Your task to perform on an android device: toggle location history Image 0: 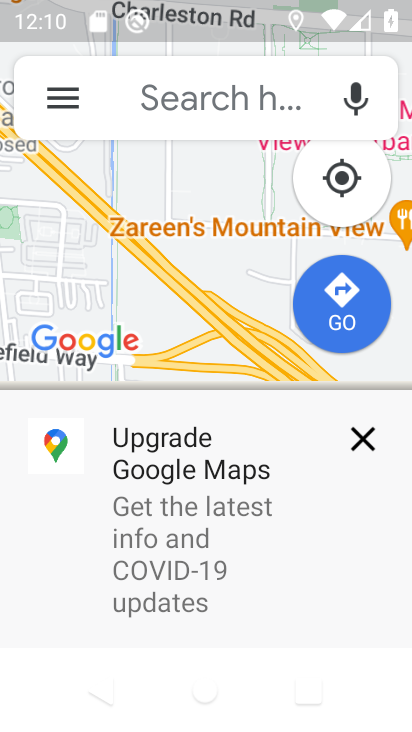
Step 0: click (378, 435)
Your task to perform on an android device: toggle location history Image 1: 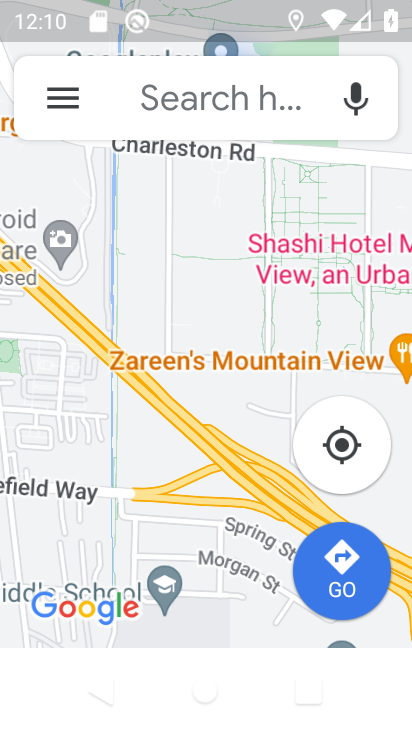
Step 1: press home button
Your task to perform on an android device: toggle location history Image 2: 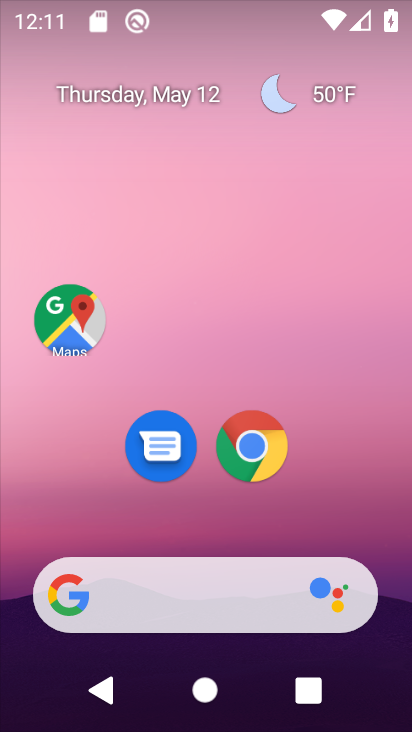
Step 2: drag from (314, 507) to (312, 9)
Your task to perform on an android device: toggle location history Image 3: 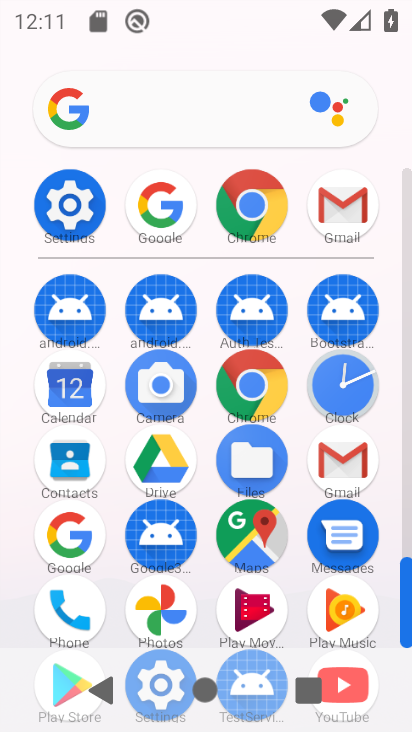
Step 3: click (56, 213)
Your task to perform on an android device: toggle location history Image 4: 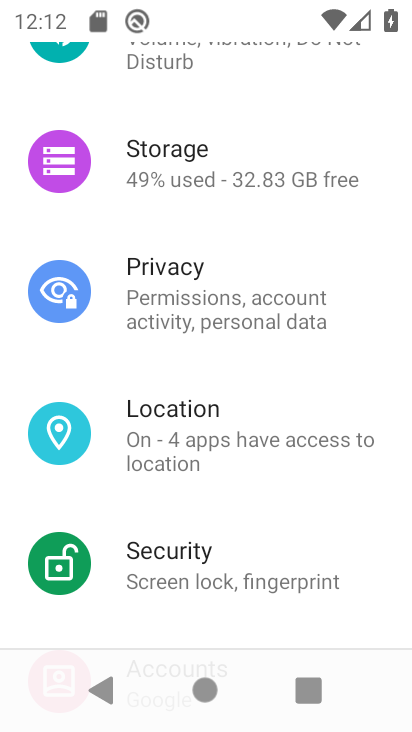
Step 4: click (218, 408)
Your task to perform on an android device: toggle location history Image 5: 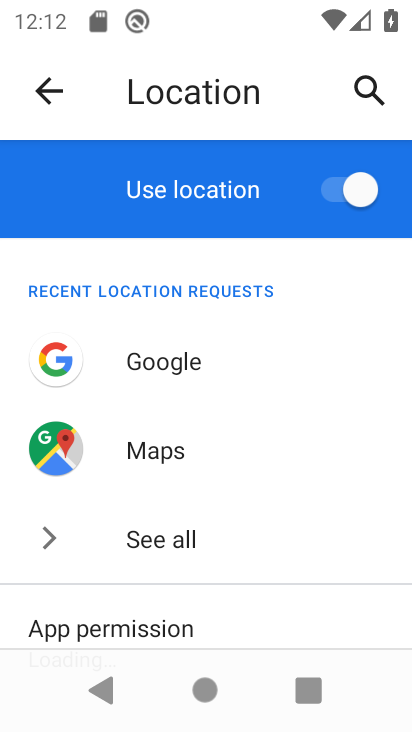
Step 5: drag from (151, 602) to (241, 192)
Your task to perform on an android device: toggle location history Image 6: 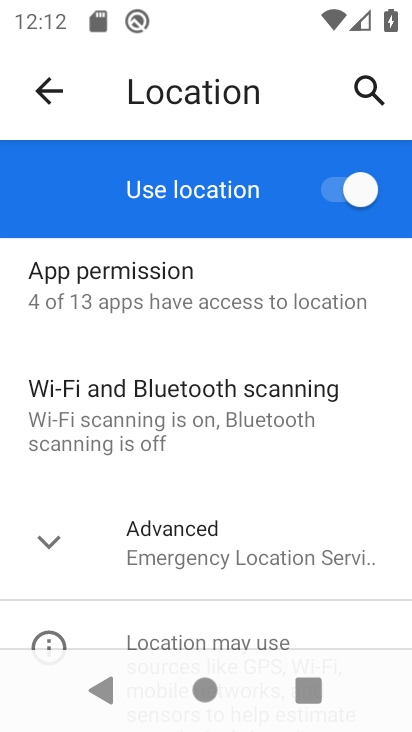
Step 6: drag from (205, 607) to (206, 239)
Your task to perform on an android device: toggle location history Image 7: 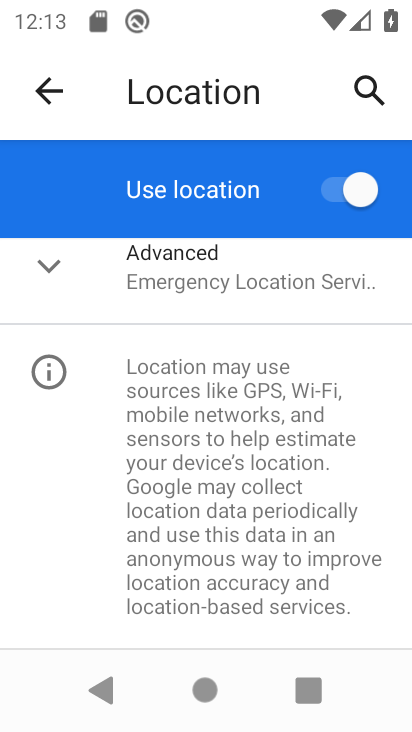
Step 7: click (192, 283)
Your task to perform on an android device: toggle location history Image 8: 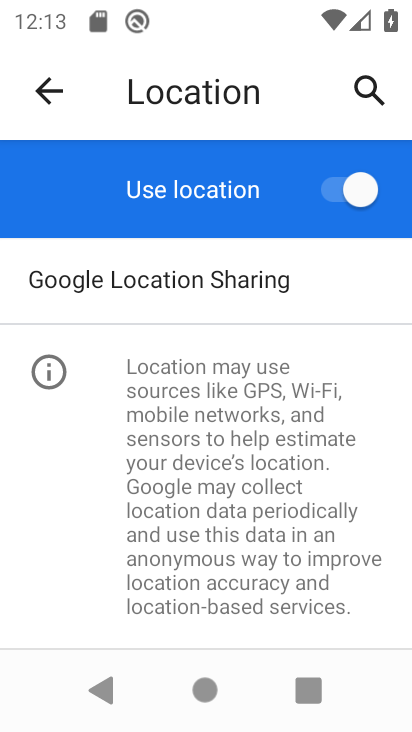
Step 8: drag from (186, 509) to (196, 237)
Your task to perform on an android device: toggle location history Image 9: 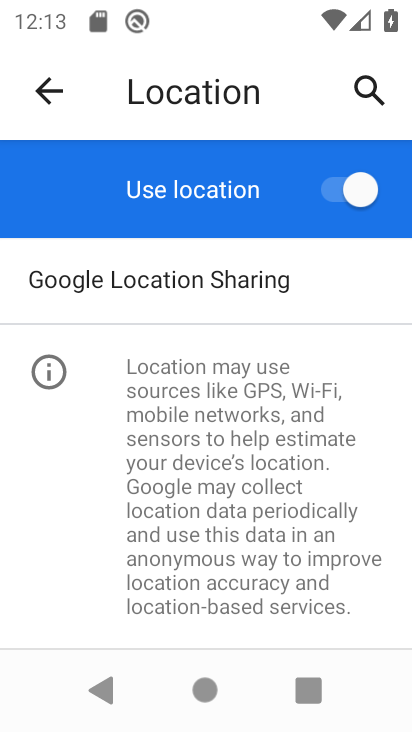
Step 9: drag from (95, 342) to (131, 557)
Your task to perform on an android device: toggle location history Image 10: 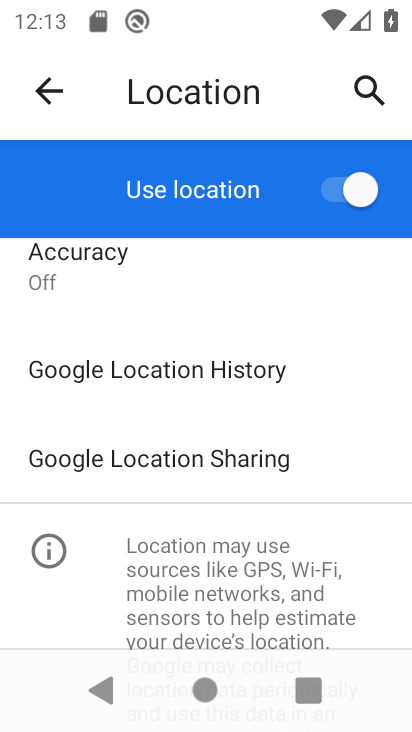
Step 10: click (183, 370)
Your task to perform on an android device: toggle location history Image 11: 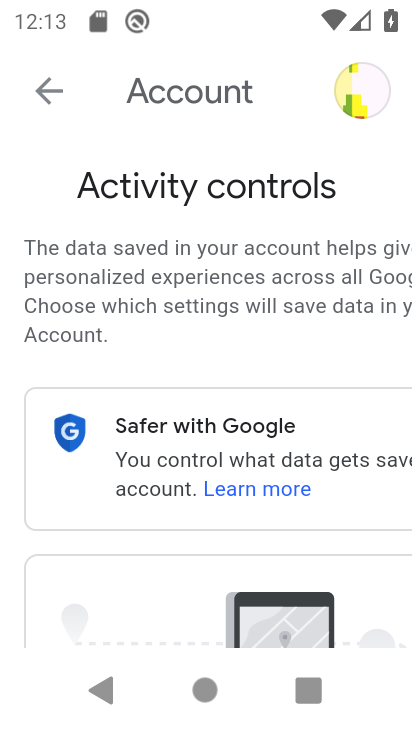
Step 11: drag from (299, 585) to (321, 103)
Your task to perform on an android device: toggle location history Image 12: 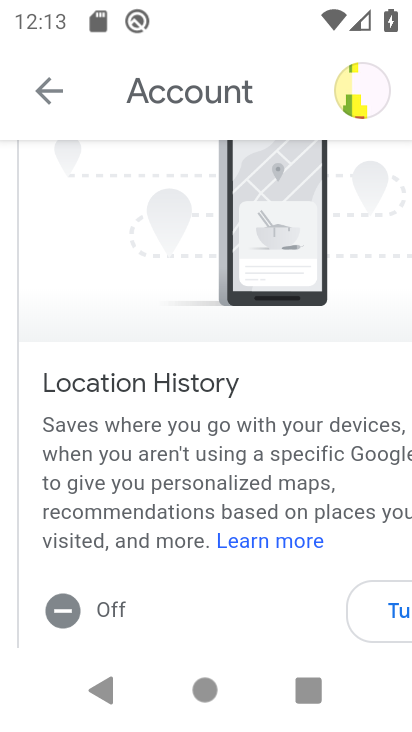
Step 12: drag from (286, 606) to (336, 98)
Your task to perform on an android device: toggle location history Image 13: 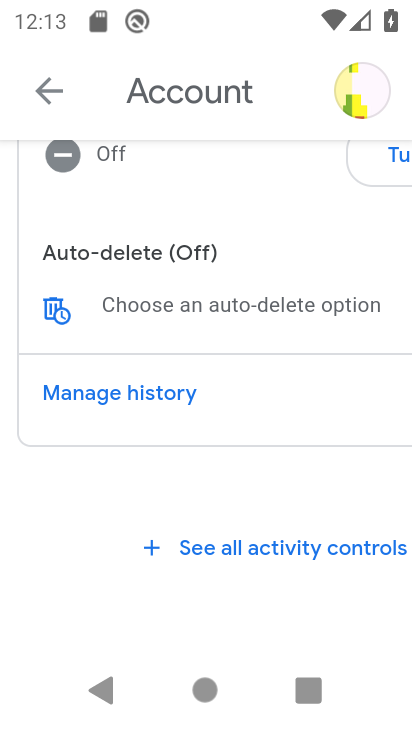
Step 13: drag from (269, 378) to (271, 722)
Your task to perform on an android device: toggle location history Image 14: 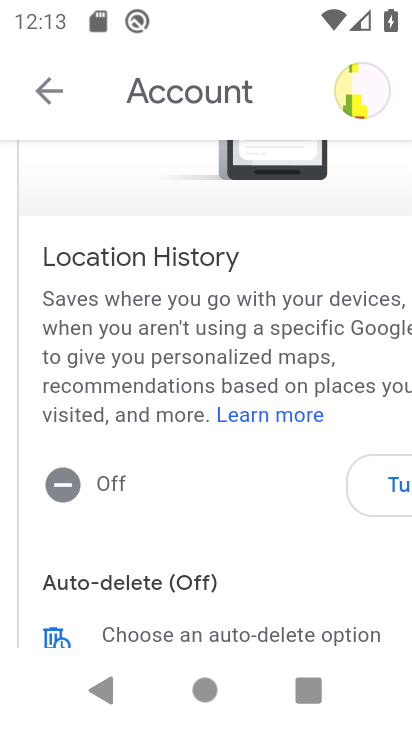
Step 14: click (380, 507)
Your task to perform on an android device: toggle location history Image 15: 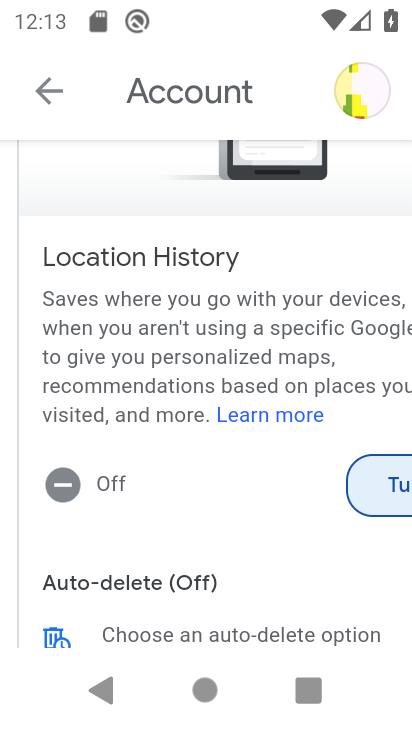
Step 15: click (375, 481)
Your task to perform on an android device: toggle location history Image 16: 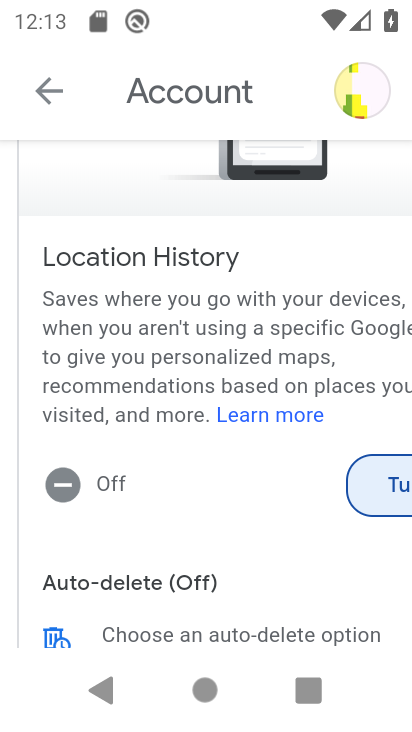
Step 16: click (375, 481)
Your task to perform on an android device: toggle location history Image 17: 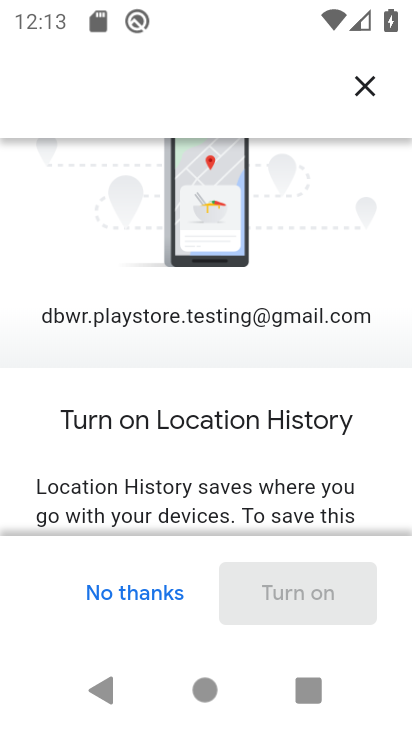
Step 17: click (130, 591)
Your task to perform on an android device: toggle location history Image 18: 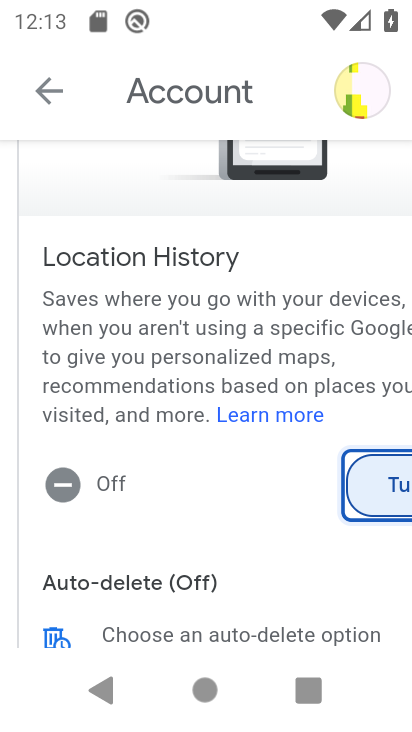
Step 18: click (374, 480)
Your task to perform on an android device: toggle location history Image 19: 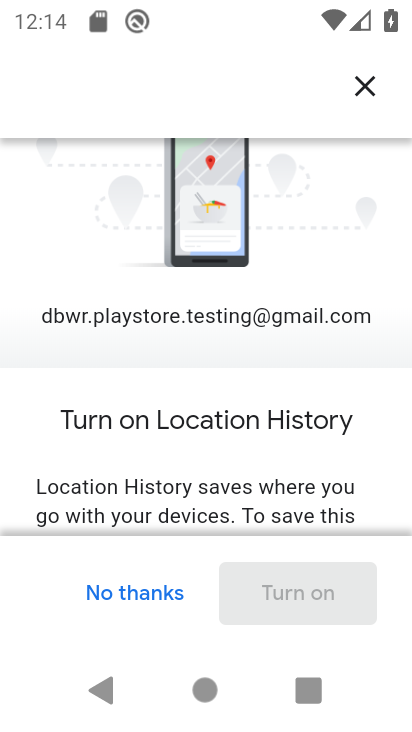
Step 19: drag from (260, 513) to (356, 6)
Your task to perform on an android device: toggle location history Image 20: 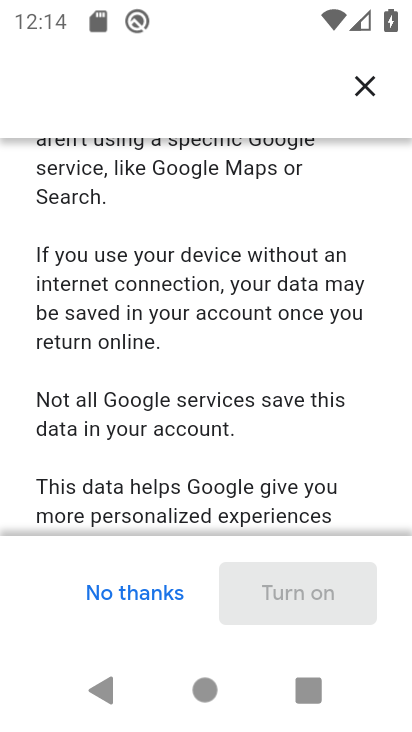
Step 20: drag from (256, 461) to (278, 1)
Your task to perform on an android device: toggle location history Image 21: 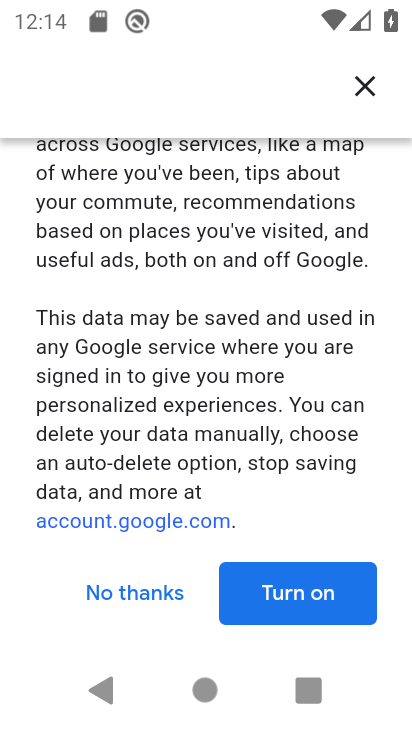
Step 21: drag from (205, 444) to (251, 21)
Your task to perform on an android device: toggle location history Image 22: 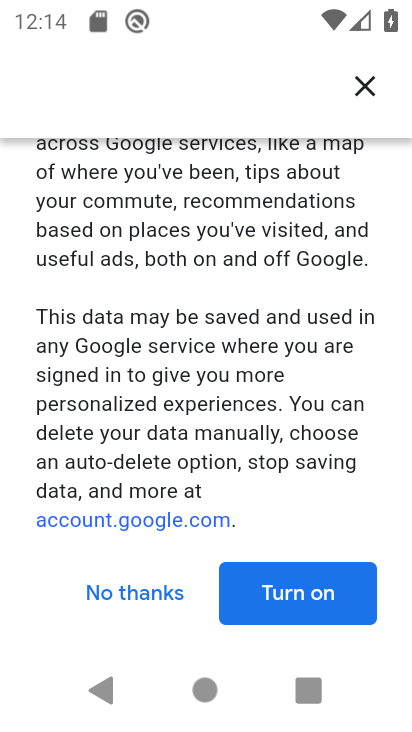
Step 22: click (264, 581)
Your task to perform on an android device: toggle location history Image 23: 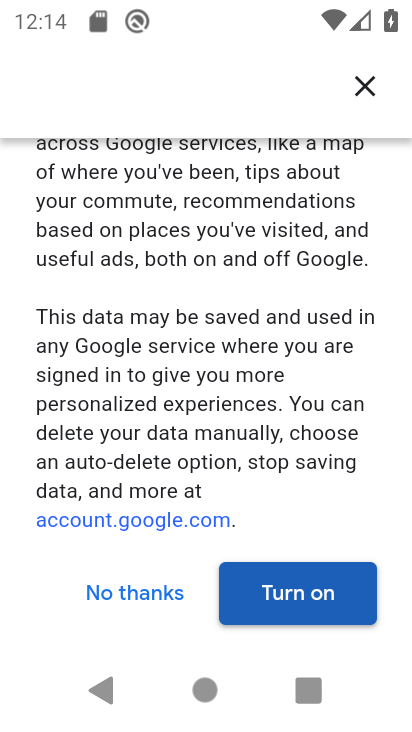
Step 23: click (311, 590)
Your task to perform on an android device: toggle location history Image 24: 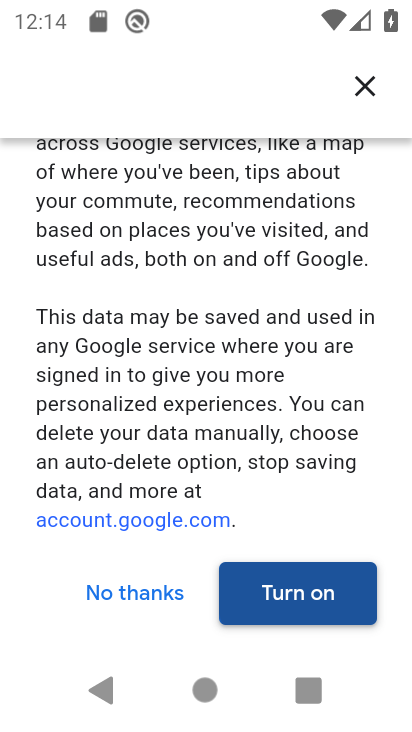
Step 24: task complete